Your task to perform on an android device: Open CNN.com Image 0: 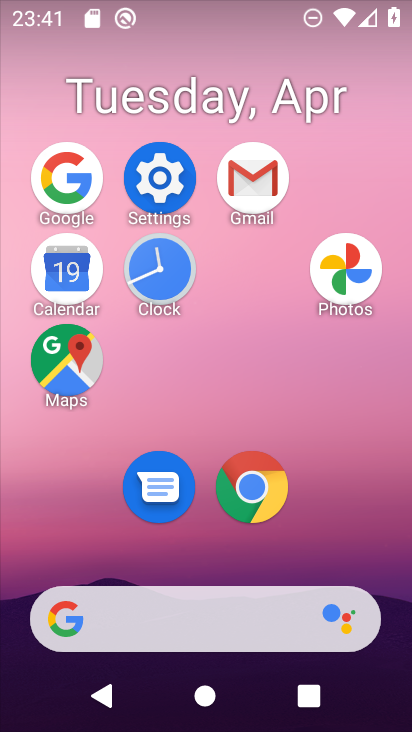
Step 0: click (272, 504)
Your task to perform on an android device: Open CNN.com Image 1: 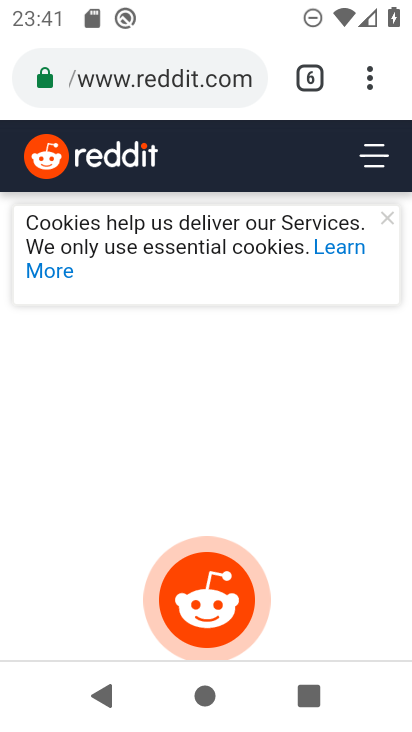
Step 1: click (316, 68)
Your task to perform on an android device: Open CNN.com Image 2: 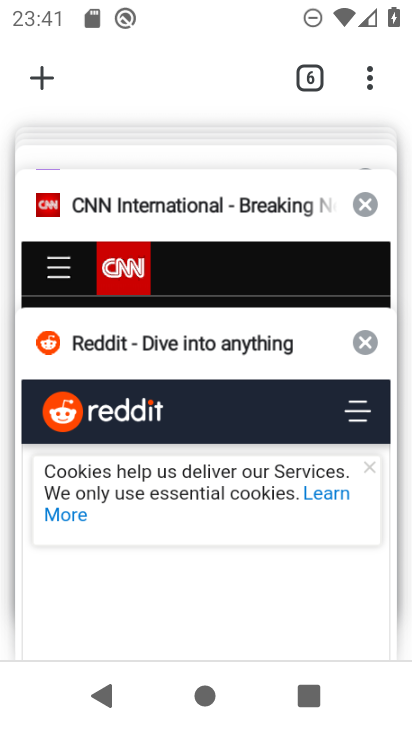
Step 2: click (55, 86)
Your task to perform on an android device: Open CNN.com Image 3: 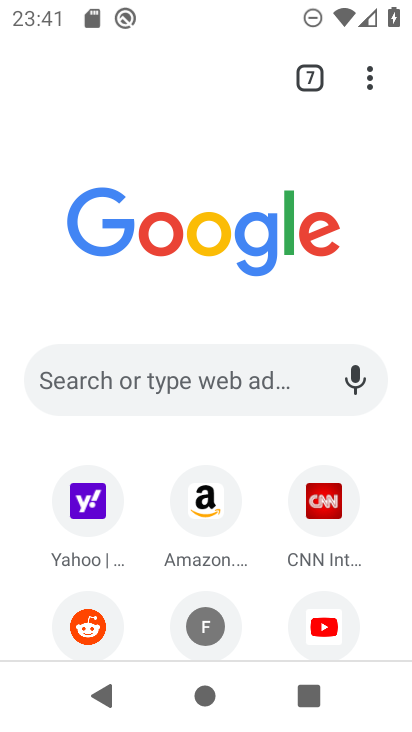
Step 3: click (317, 498)
Your task to perform on an android device: Open CNN.com Image 4: 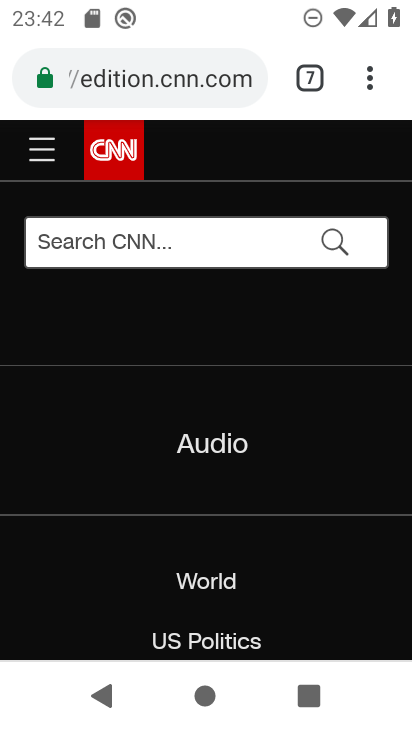
Step 4: task complete